Your task to perform on an android device: Go to Reddit.com Image 0: 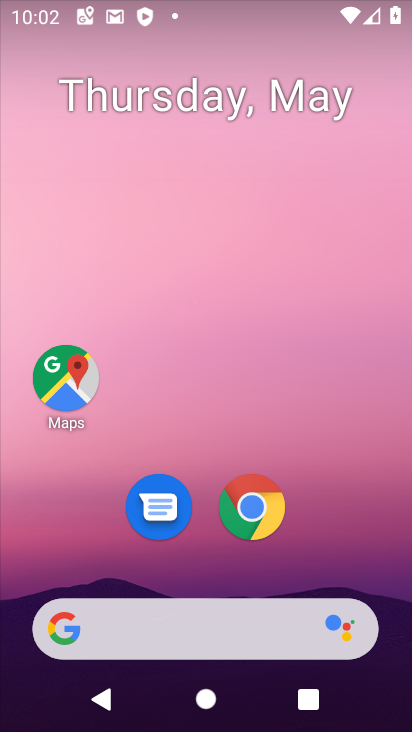
Step 0: click (258, 510)
Your task to perform on an android device: Go to Reddit.com Image 1: 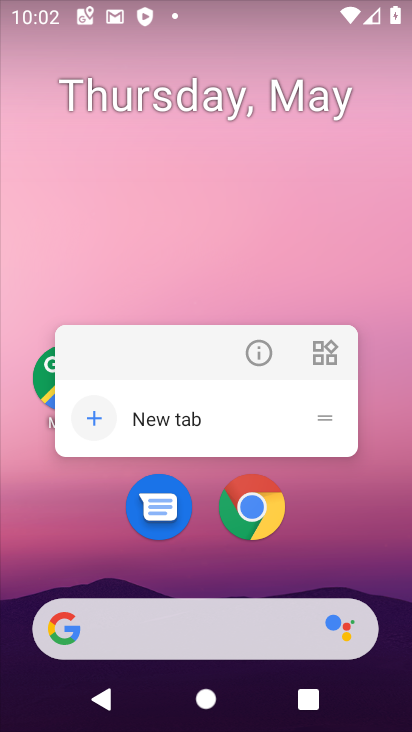
Step 1: click (258, 510)
Your task to perform on an android device: Go to Reddit.com Image 2: 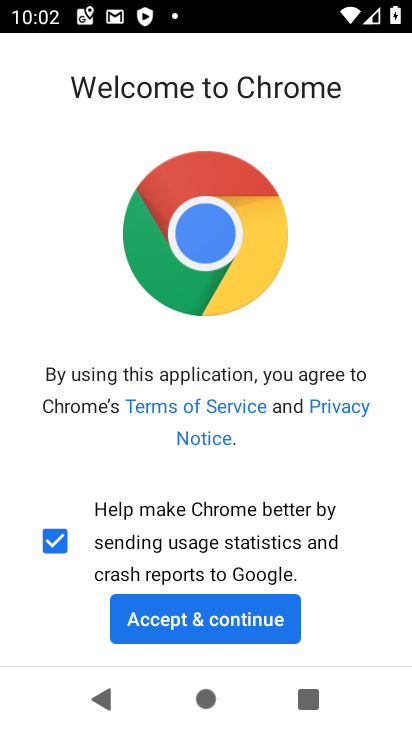
Step 2: click (259, 619)
Your task to perform on an android device: Go to Reddit.com Image 3: 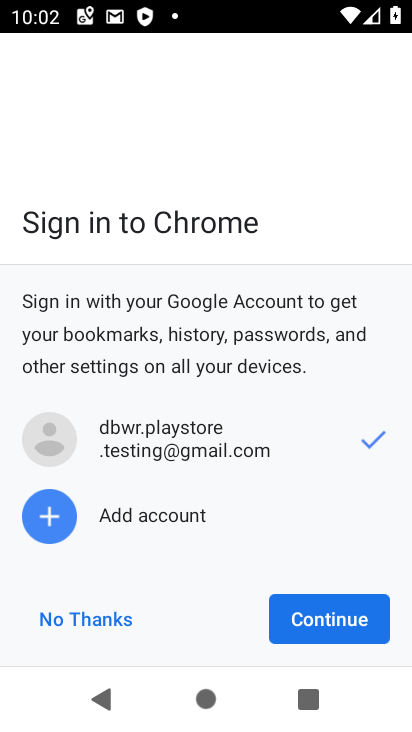
Step 3: click (348, 631)
Your task to perform on an android device: Go to Reddit.com Image 4: 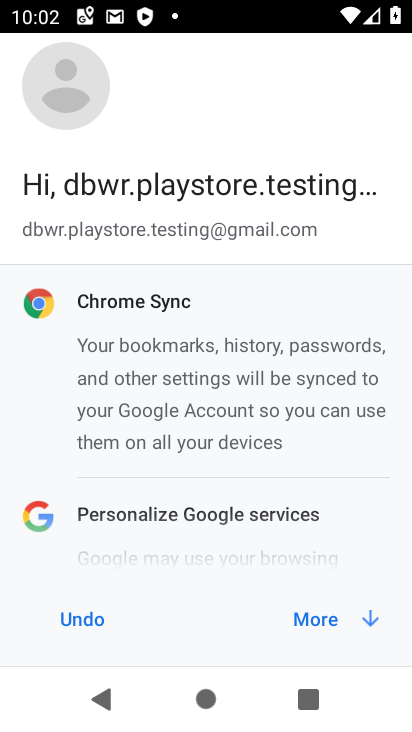
Step 4: click (348, 631)
Your task to perform on an android device: Go to Reddit.com Image 5: 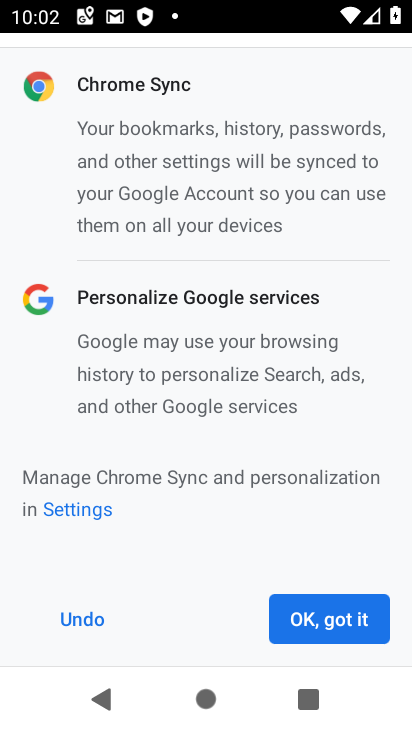
Step 5: click (348, 631)
Your task to perform on an android device: Go to Reddit.com Image 6: 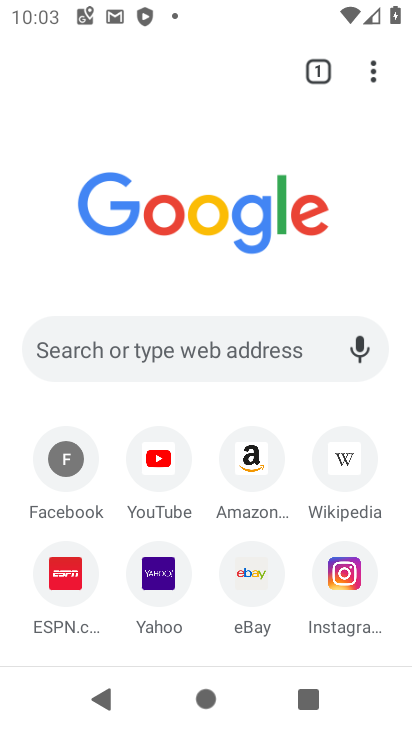
Step 6: click (241, 353)
Your task to perform on an android device: Go to Reddit.com Image 7: 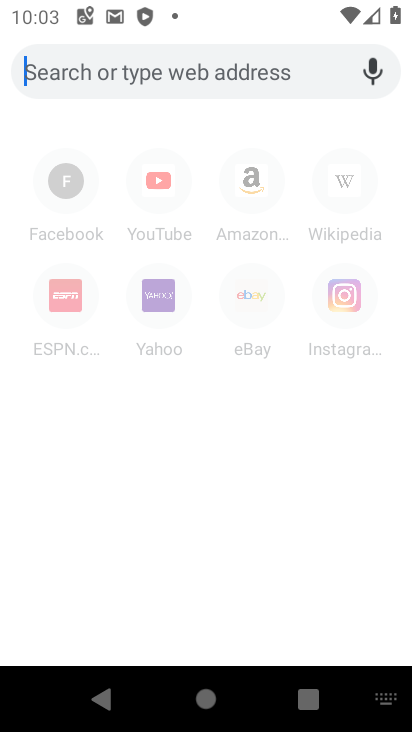
Step 7: type "reddit.com"
Your task to perform on an android device: Go to Reddit.com Image 8: 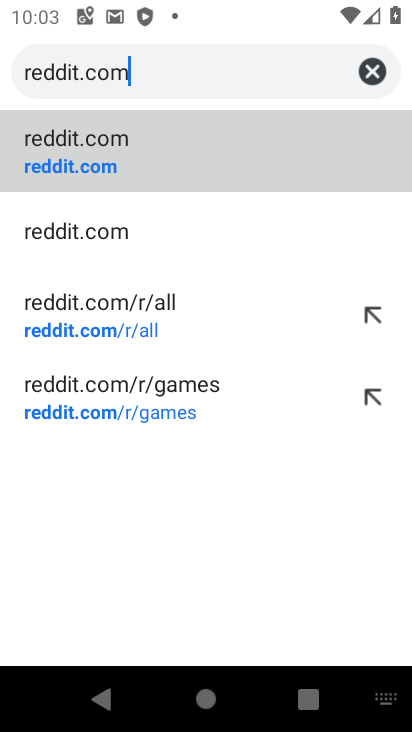
Step 8: click (169, 158)
Your task to perform on an android device: Go to Reddit.com Image 9: 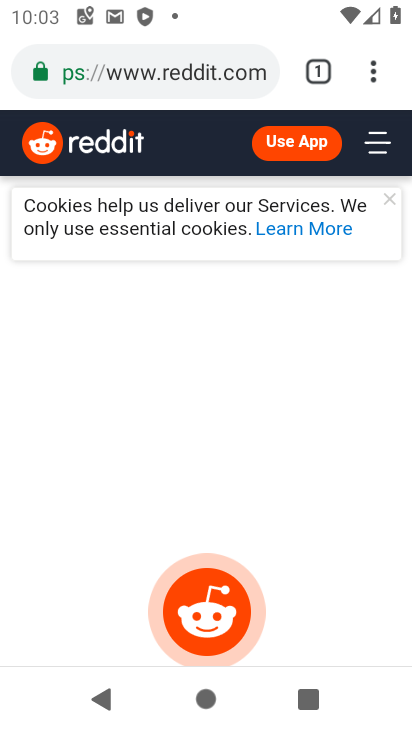
Step 9: task complete